Your task to perform on an android device: change keyboard looks Image 0: 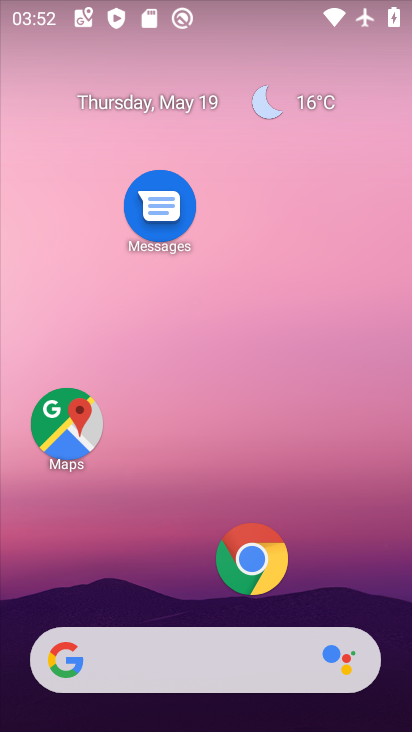
Step 0: drag from (180, 600) to (240, 273)
Your task to perform on an android device: change keyboard looks Image 1: 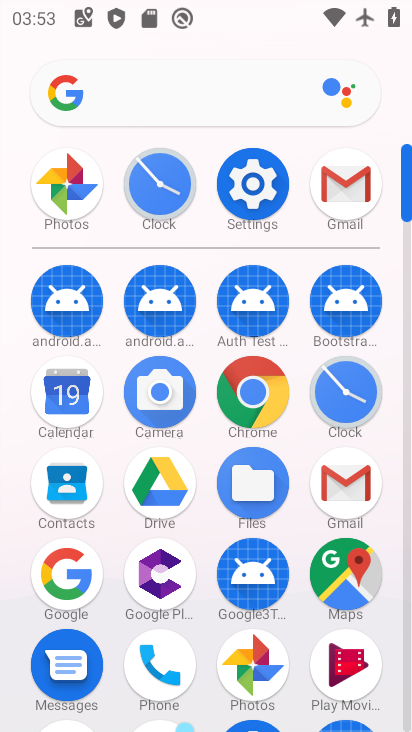
Step 1: click (270, 193)
Your task to perform on an android device: change keyboard looks Image 2: 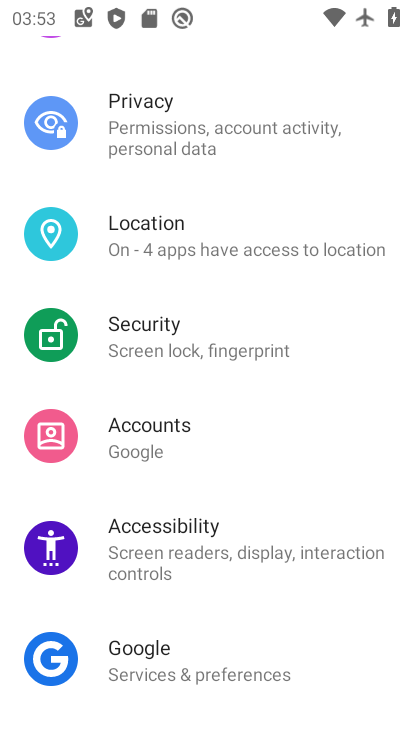
Step 2: drag from (173, 592) to (209, 300)
Your task to perform on an android device: change keyboard looks Image 3: 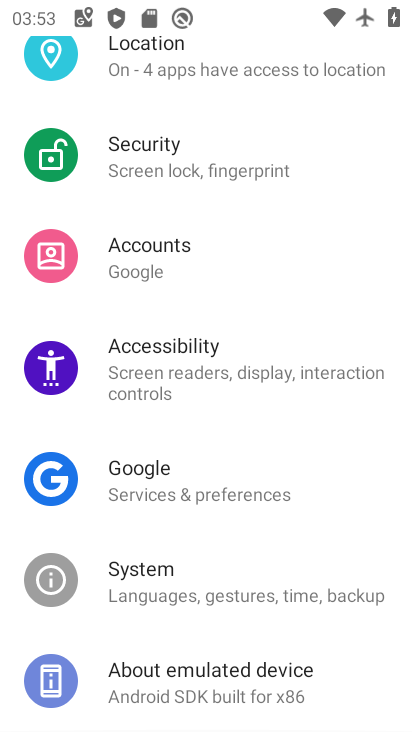
Step 3: drag from (209, 700) to (210, 417)
Your task to perform on an android device: change keyboard looks Image 4: 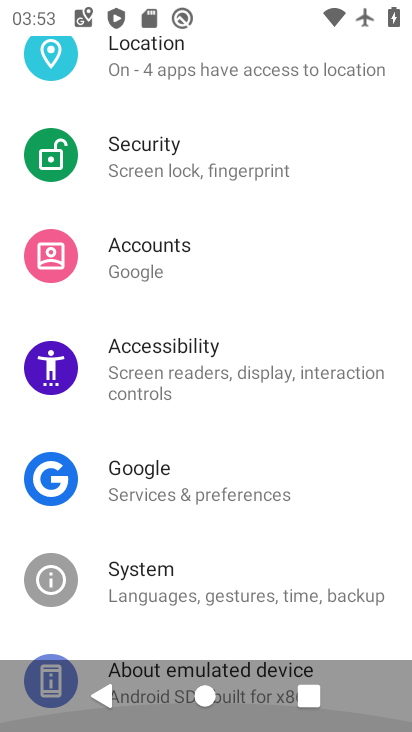
Step 4: drag from (212, 609) to (230, 363)
Your task to perform on an android device: change keyboard looks Image 5: 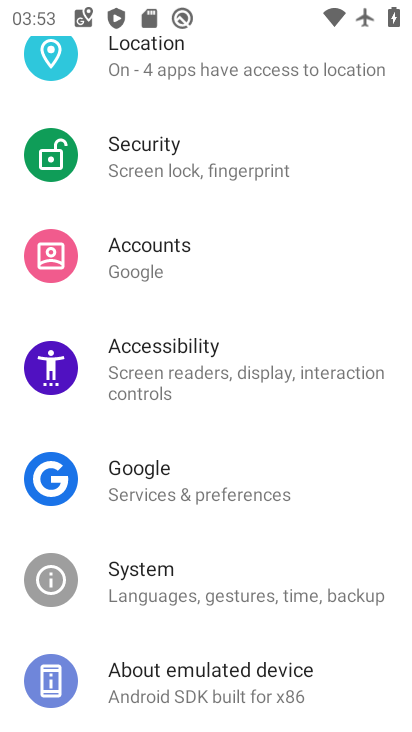
Step 5: click (179, 570)
Your task to perform on an android device: change keyboard looks Image 6: 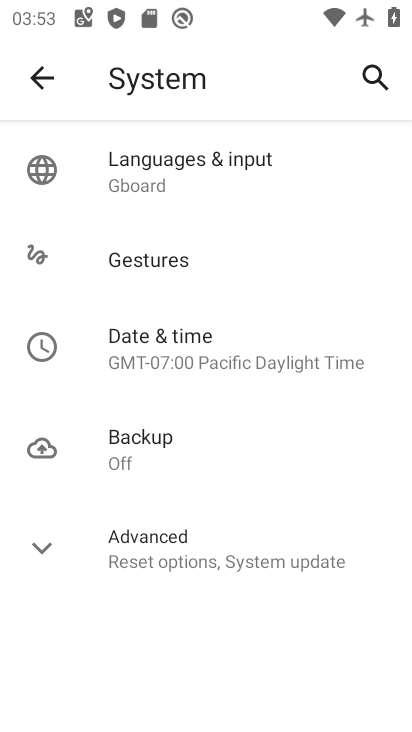
Step 6: click (161, 168)
Your task to perform on an android device: change keyboard looks Image 7: 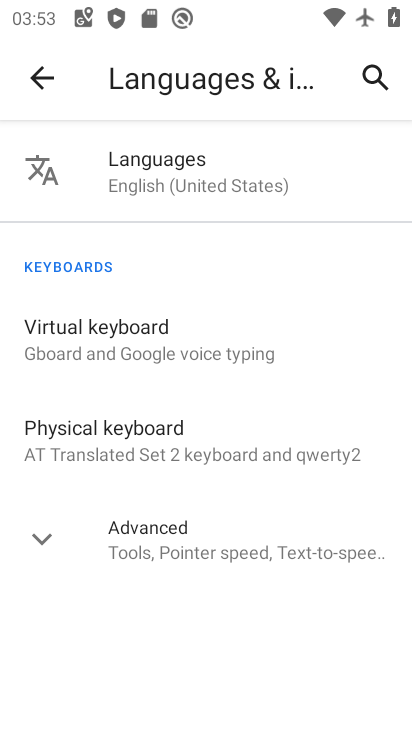
Step 7: click (158, 320)
Your task to perform on an android device: change keyboard looks Image 8: 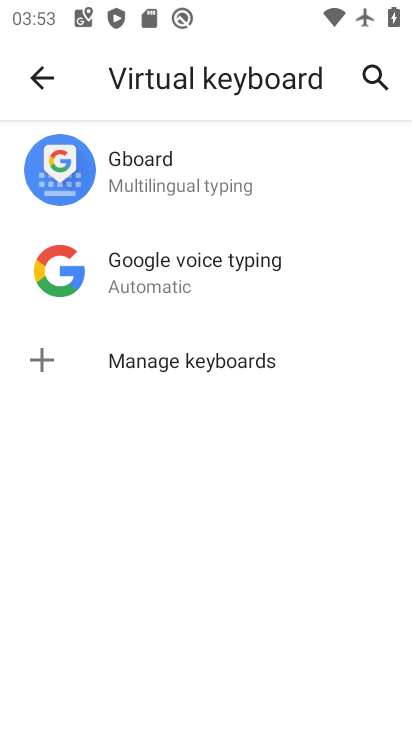
Step 8: click (163, 188)
Your task to perform on an android device: change keyboard looks Image 9: 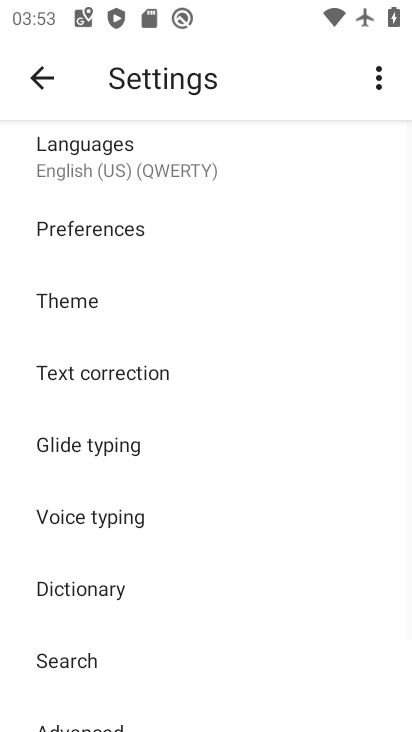
Step 9: click (117, 296)
Your task to perform on an android device: change keyboard looks Image 10: 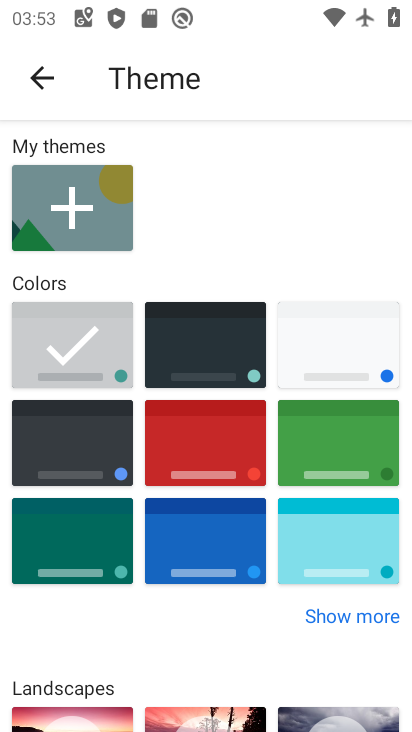
Step 10: click (239, 345)
Your task to perform on an android device: change keyboard looks Image 11: 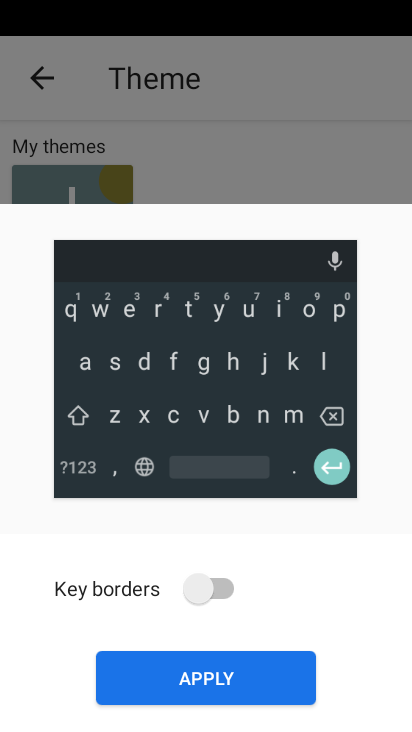
Step 11: click (148, 661)
Your task to perform on an android device: change keyboard looks Image 12: 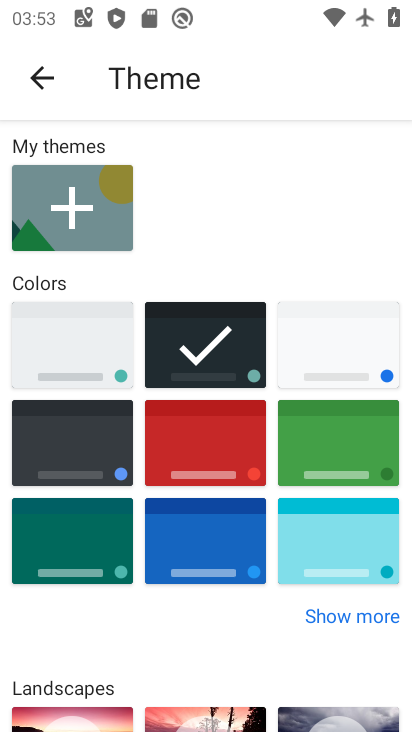
Step 12: task complete